Your task to perform on an android device: delete the emails in spam in the gmail app Image 0: 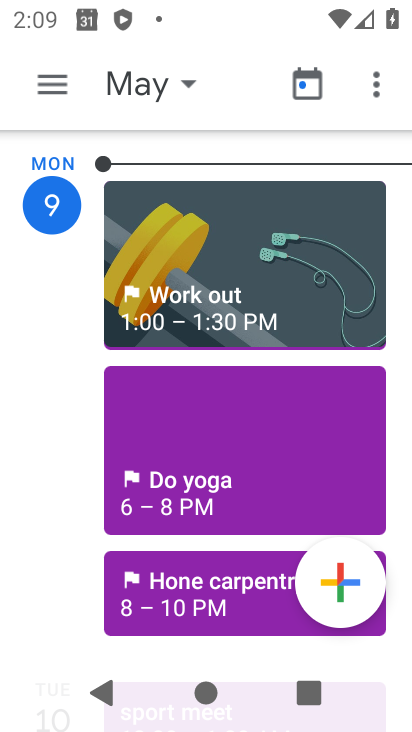
Step 0: press home button
Your task to perform on an android device: delete the emails in spam in the gmail app Image 1: 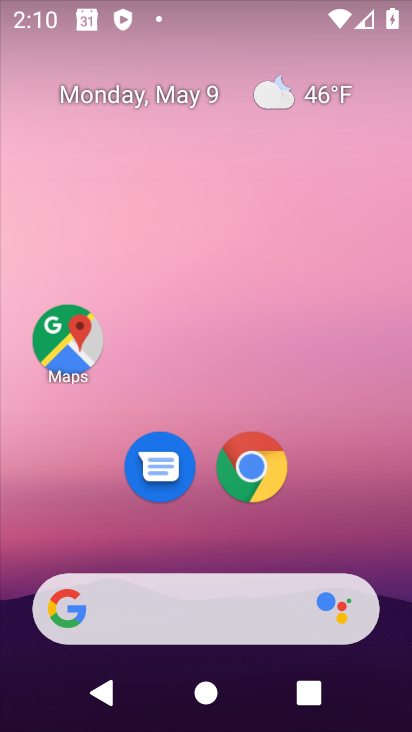
Step 1: drag from (336, 443) to (324, 2)
Your task to perform on an android device: delete the emails in spam in the gmail app Image 2: 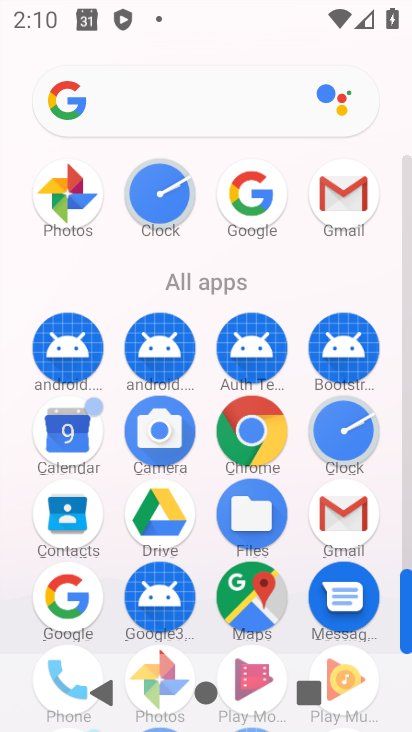
Step 2: click (344, 176)
Your task to perform on an android device: delete the emails in spam in the gmail app Image 3: 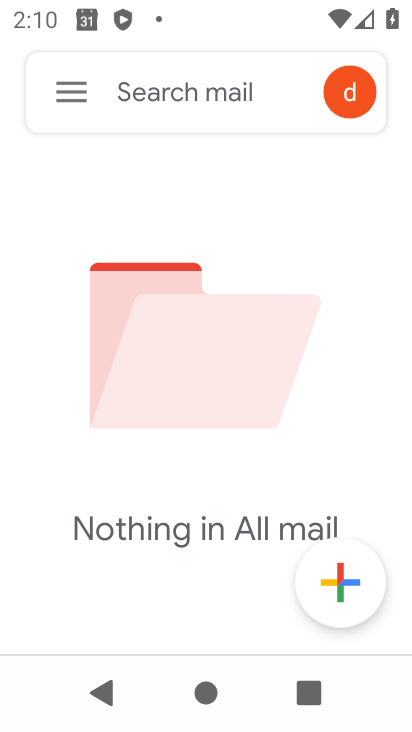
Step 3: task complete